Your task to perform on an android device: What's the weather? Image 0: 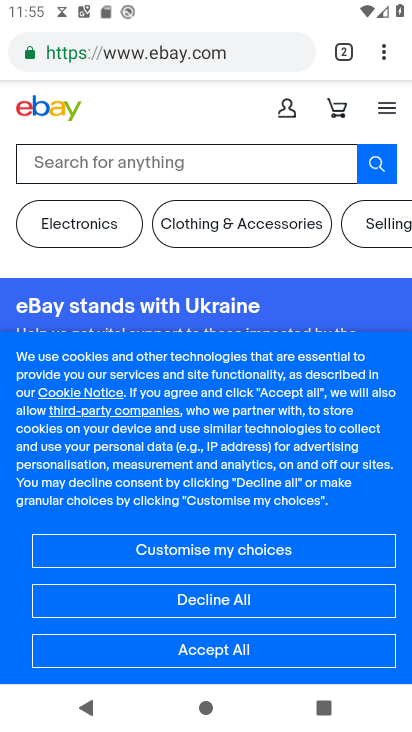
Step 0: press home button
Your task to perform on an android device: What's the weather? Image 1: 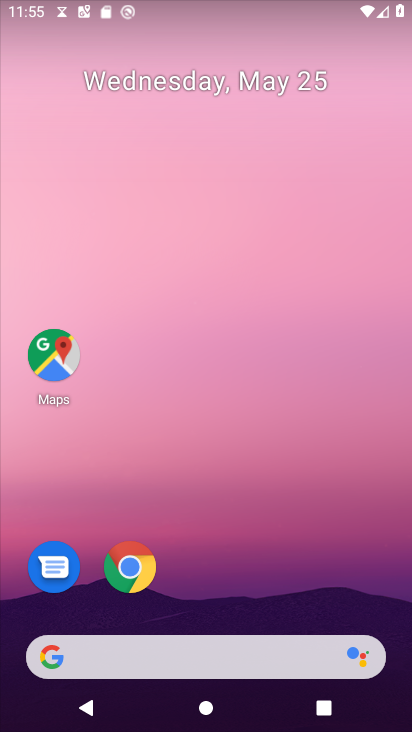
Step 1: click (193, 635)
Your task to perform on an android device: What's the weather? Image 2: 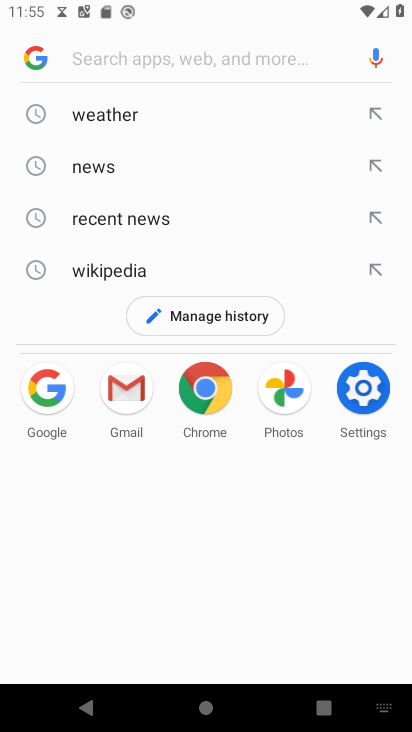
Step 2: click (123, 123)
Your task to perform on an android device: What's the weather? Image 3: 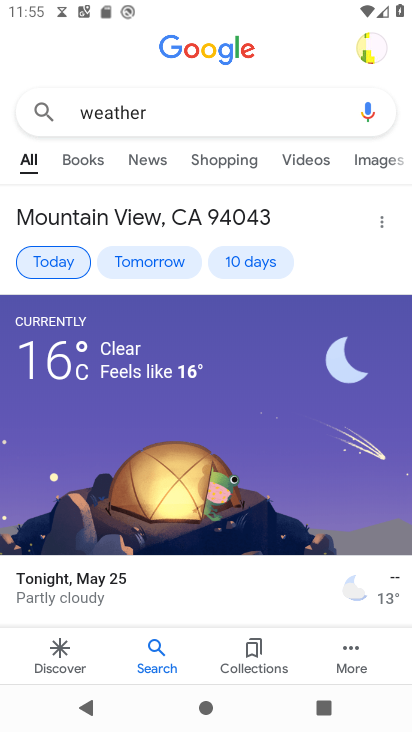
Step 3: task complete